Your task to perform on an android device: What's the weather going to be this weekend? Image 0: 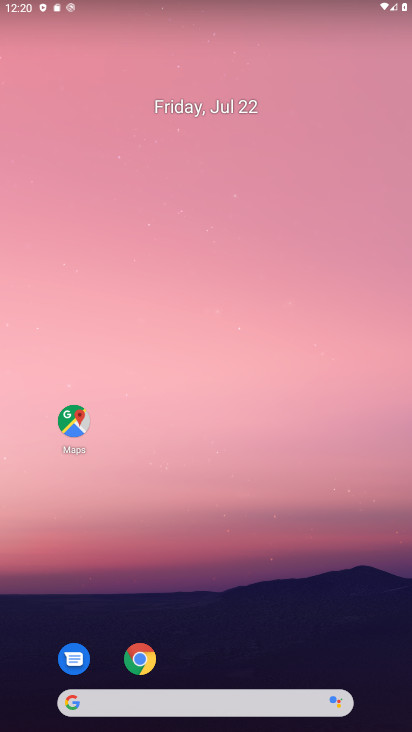
Step 0: click (252, 709)
Your task to perform on an android device: What's the weather going to be this weekend? Image 1: 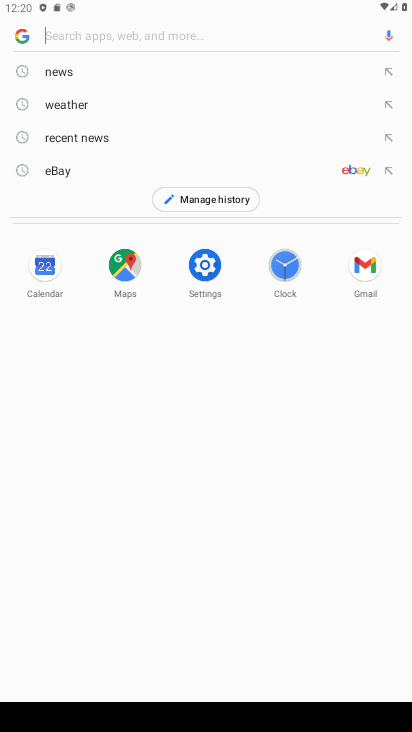
Step 1: click (65, 104)
Your task to perform on an android device: What's the weather going to be this weekend? Image 2: 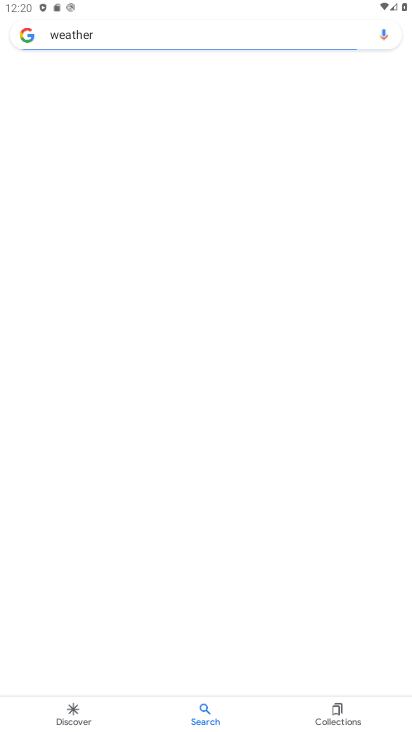
Step 2: task complete